Your task to perform on an android device: find photos in the google photos app Image 0: 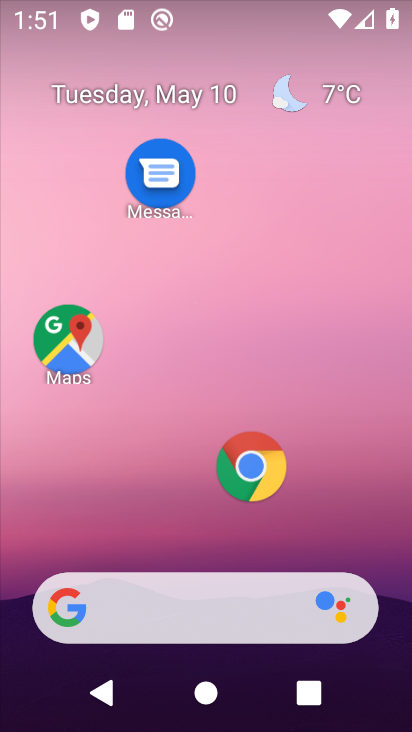
Step 0: drag from (202, 532) to (206, 78)
Your task to perform on an android device: find photos in the google photos app Image 1: 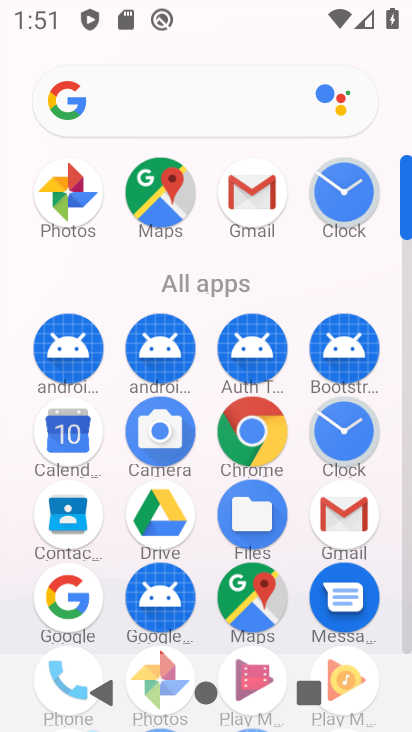
Step 1: drag from (203, 576) to (212, 350)
Your task to perform on an android device: find photos in the google photos app Image 2: 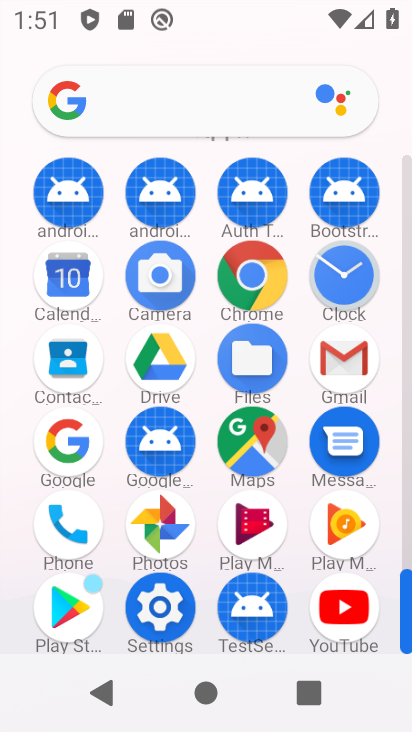
Step 2: click (165, 527)
Your task to perform on an android device: find photos in the google photos app Image 3: 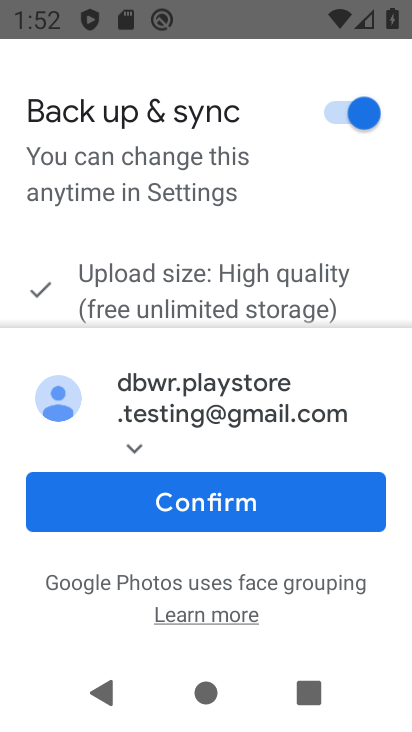
Step 3: click (218, 520)
Your task to perform on an android device: find photos in the google photos app Image 4: 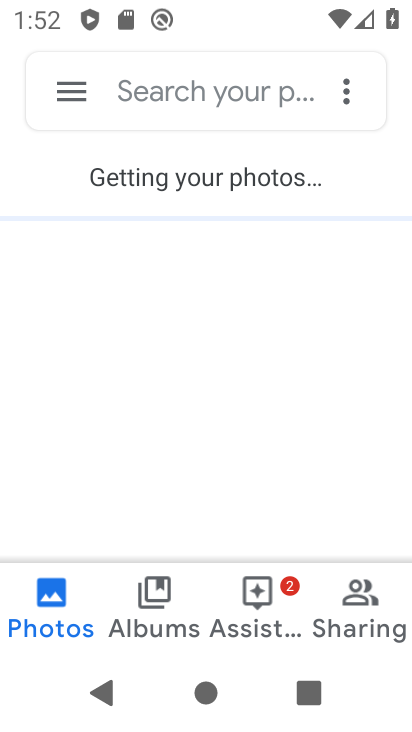
Step 4: task complete